Your task to perform on an android device: Go to wifi settings Image 0: 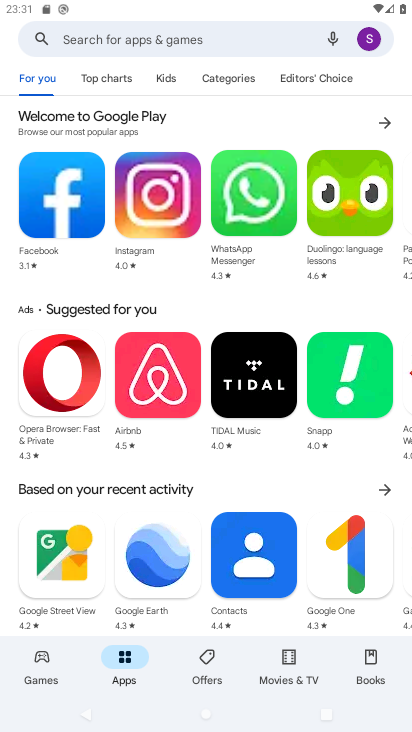
Step 0: press home button
Your task to perform on an android device: Go to wifi settings Image 1: 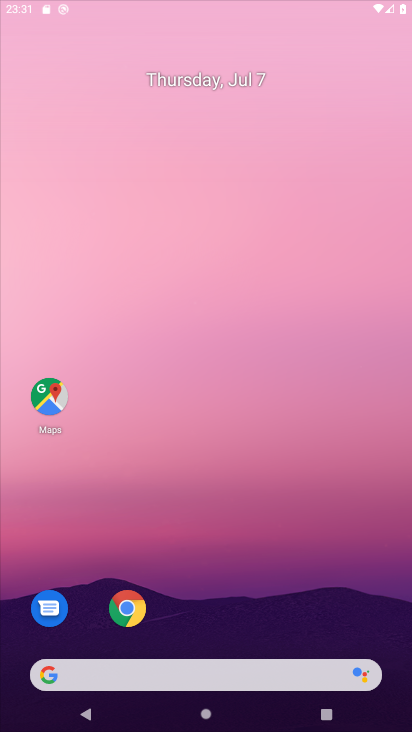
Step 1: drag from (293, 616) to (263, 242)
Your task to perform on an android device: Go to wifi settings Image 2: 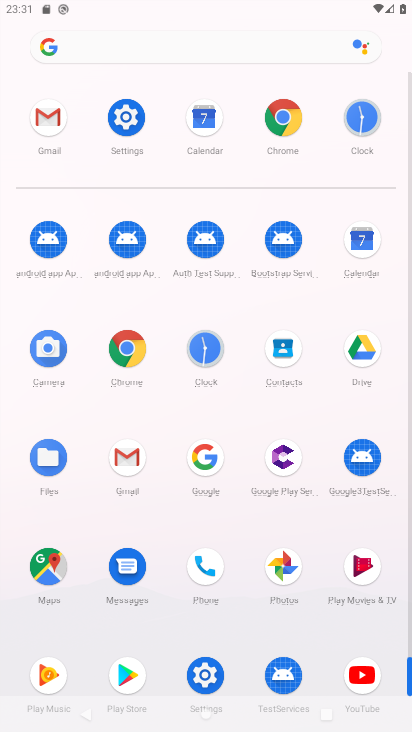
Step 2: click (117, 103)
Your task to perform on an android device: Go to wifi settings Image 3: 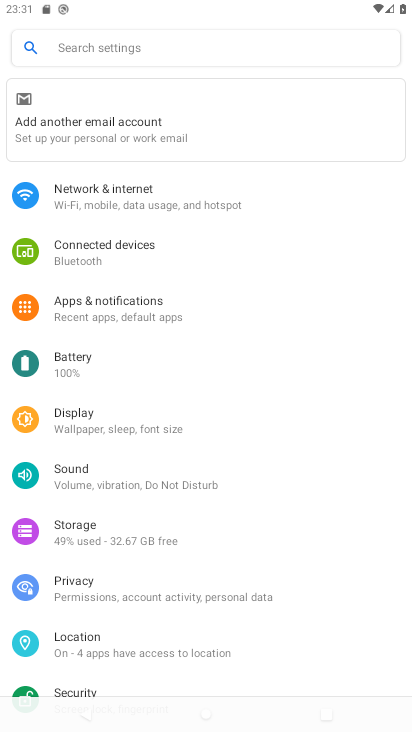
Step 3: click (131, 197)
Your task to perform on an android device: Go to wifi settings Image 4: 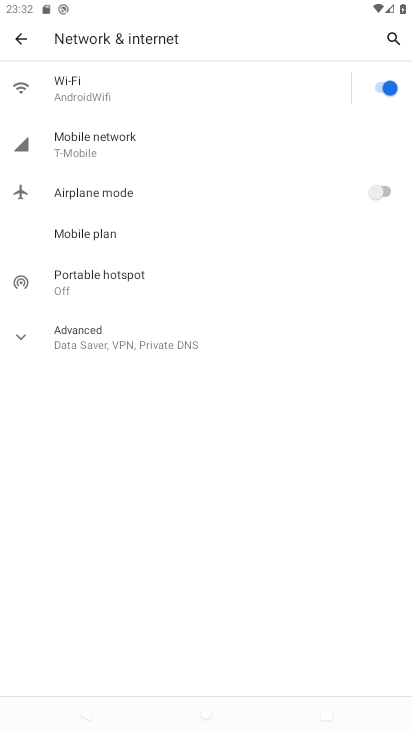
Step 4: click (175, 88)
Your task to perform on an android device: Go to wifi settings Image 5: 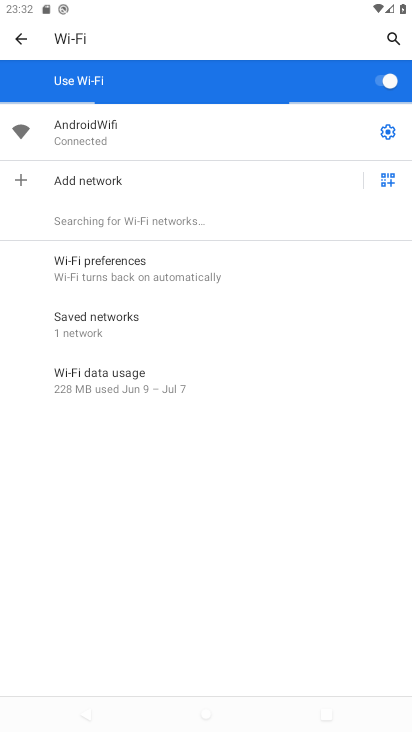
Step 5: task complete